Your task to perform on an android device: choose inbox layout in the gmail app Image 0: 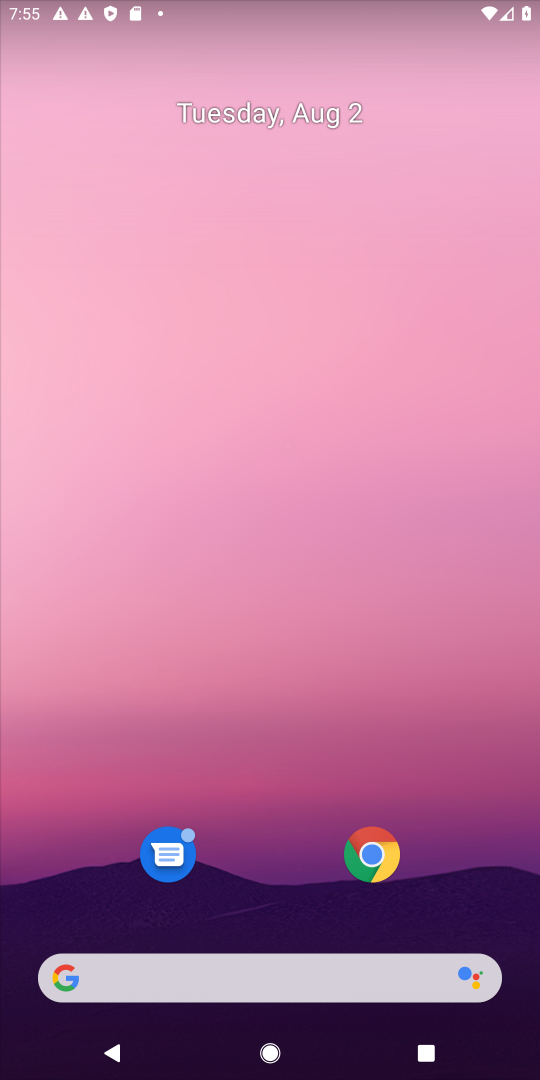
Step 0: press home button
Your task to perform on an android device: choose inbox layout in the gmail app Image 1: 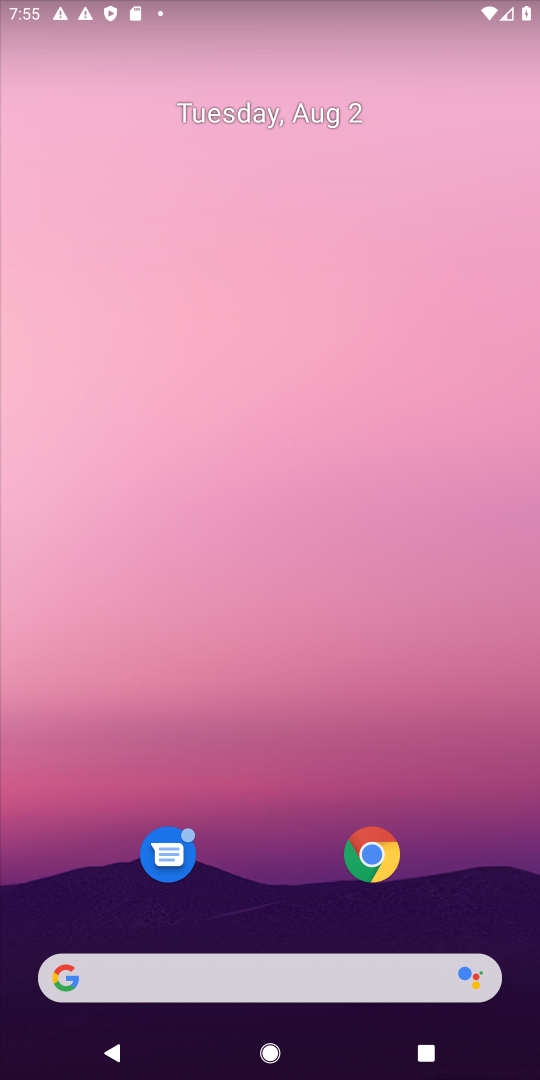
Step 1: drag from (277, 906) to (294, 145)
Your task to perform on an android device: choose inbox layout in the gmail app Image 2: 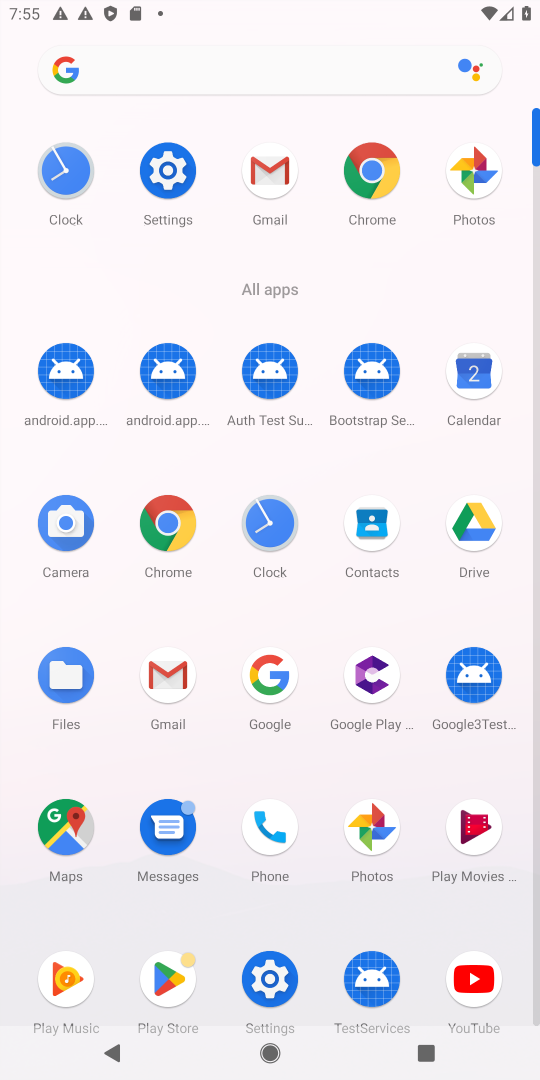
Step 2: click (266, 183)
Your task to perform on an android device: choose inbox layout in the gmail app Image 3: 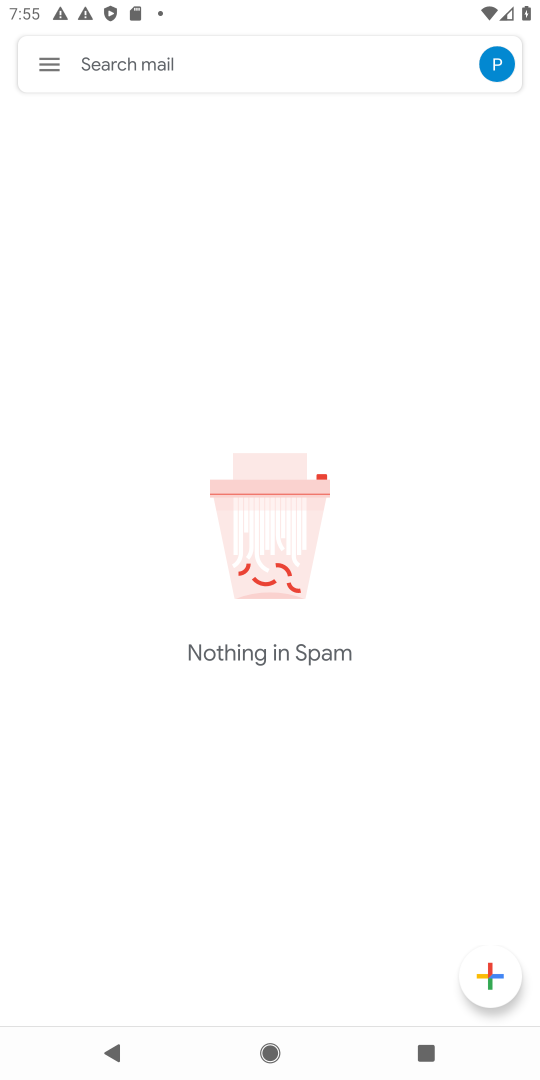
Step 3: click (54, 59)
Your task to perform on an android device: choose inbox layout in the gmail app Image 4: 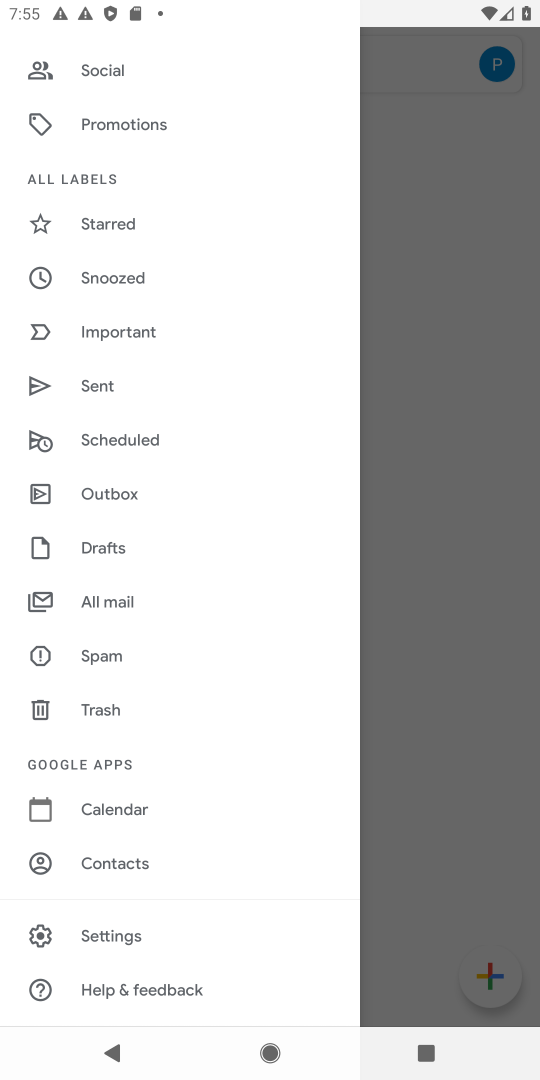
Step 4: click (189, 938)
Your task to perform on an android device: choose inbox layout in the gmail app Image 5: 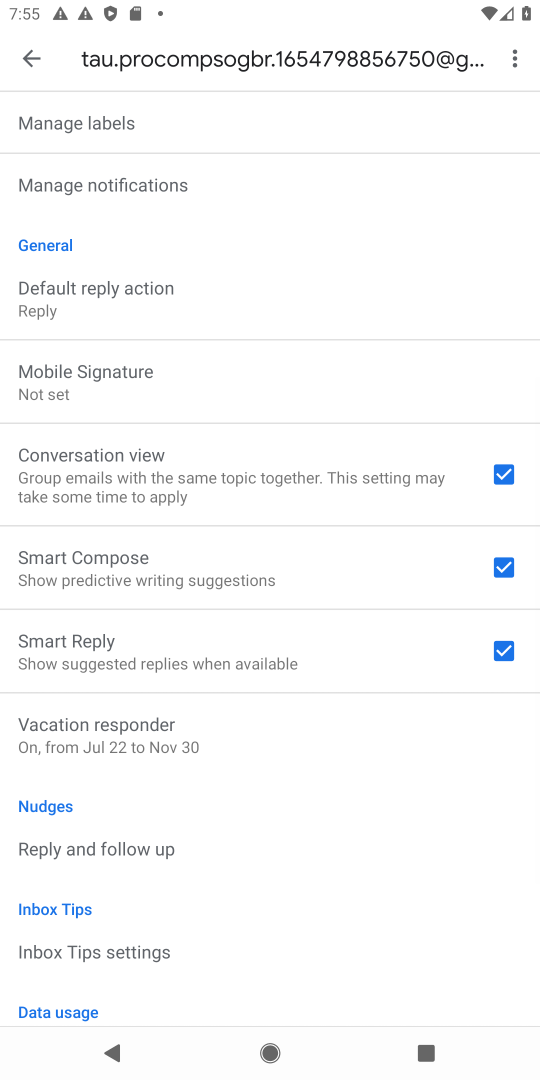
Step 5: drag from (324, 851) to (349, 615)
Your task to perform on an android device: choose inbox layout in the gmail app Image 6: 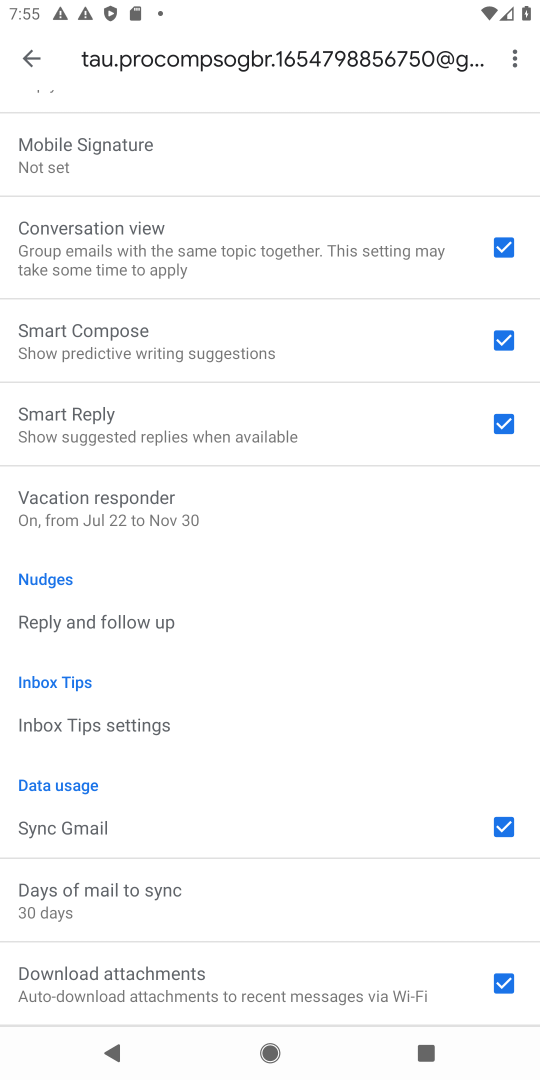
Step 6: drag from (313, 936) to (382, 391)
Your task to perform on an android device: choose inbox layout in the gmail app Image 7: 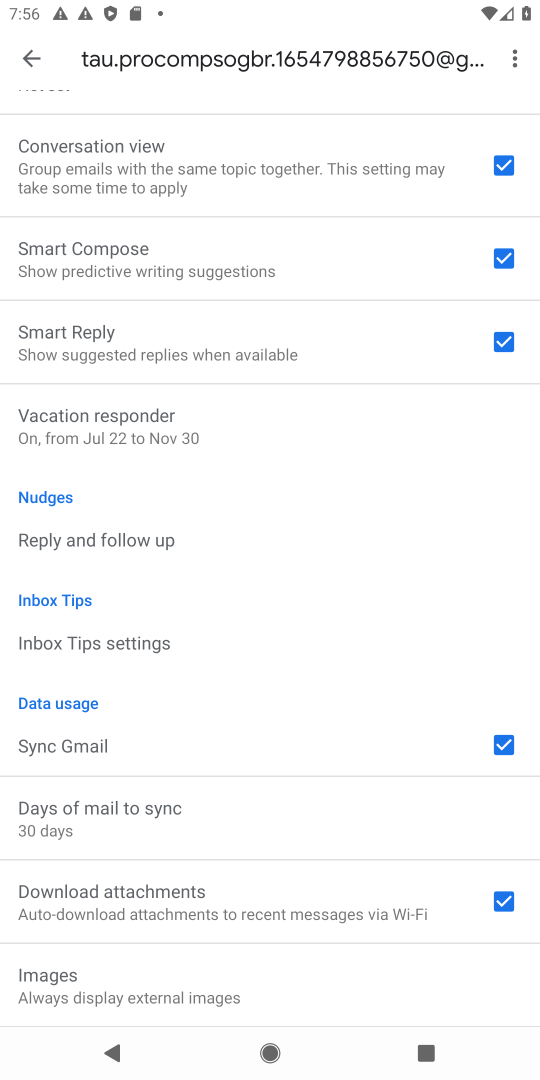
Step 7: drag from (390, 260) to (388, 683)
Your task to perform on an android device: choose inbox layout in the gmail app Image 8: 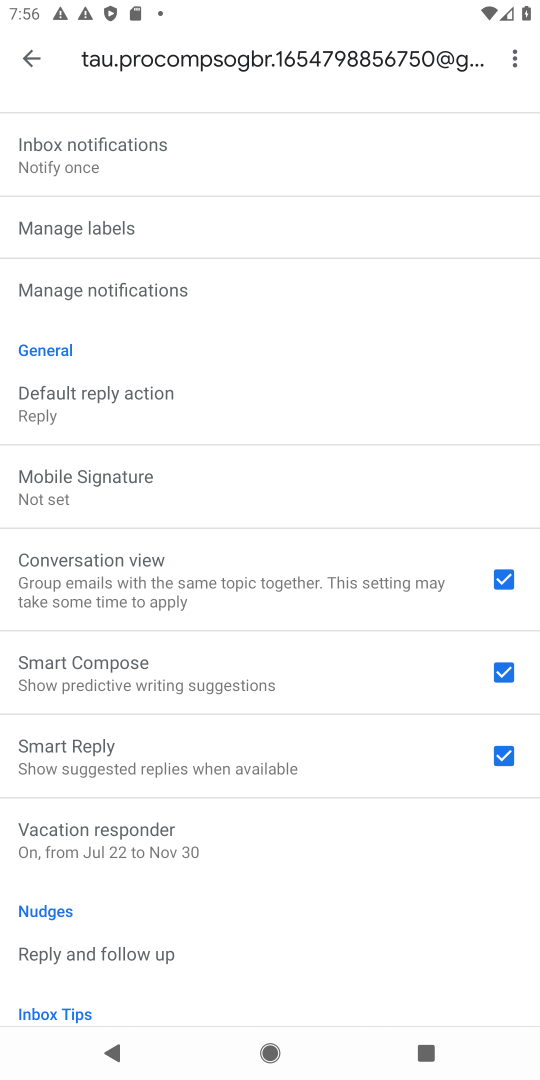
Step 8: drag from (301, 368) to (301, 671)
Your task to perform on an android device: choose inbox layout in the gmail app Image 9: 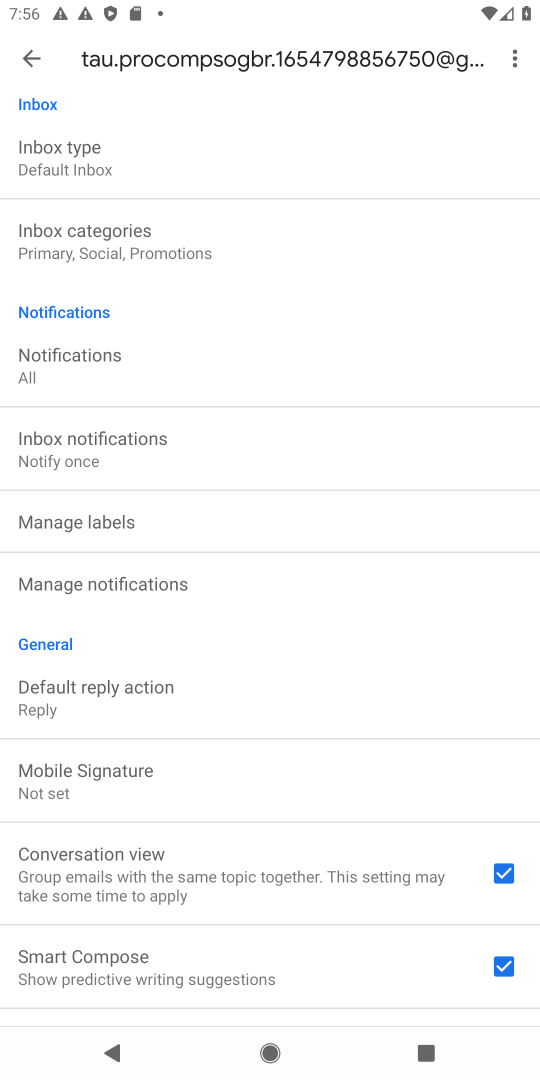
Step 9: drag from (294, 224) to (298, 603)
Your task to perform on an android device: choose inbox layout in the gmail app Image 10: 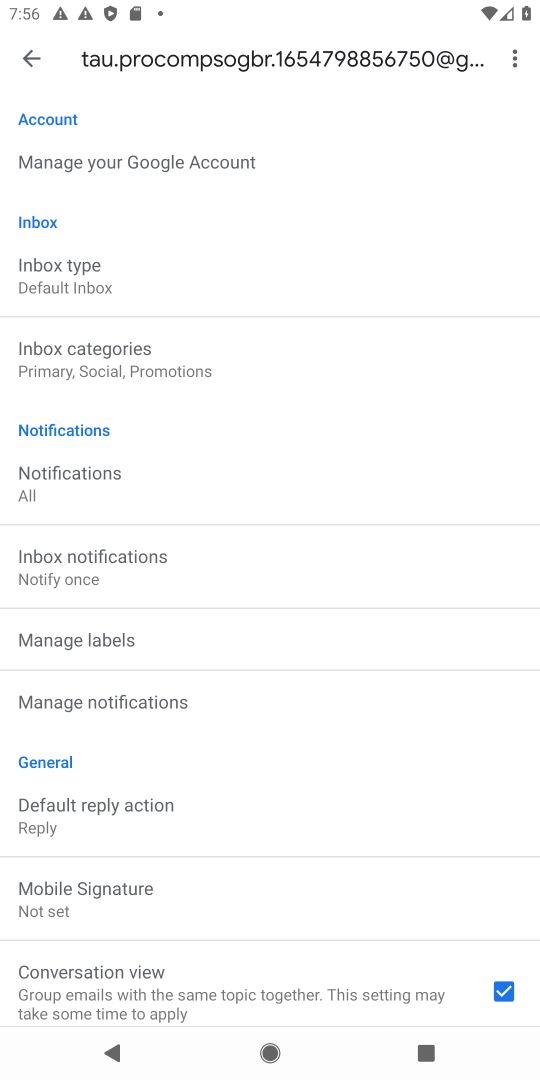
Step 10: click (134, 280)
Your task to perform on an android device: choose inbox layout in the gmail app Image 11: 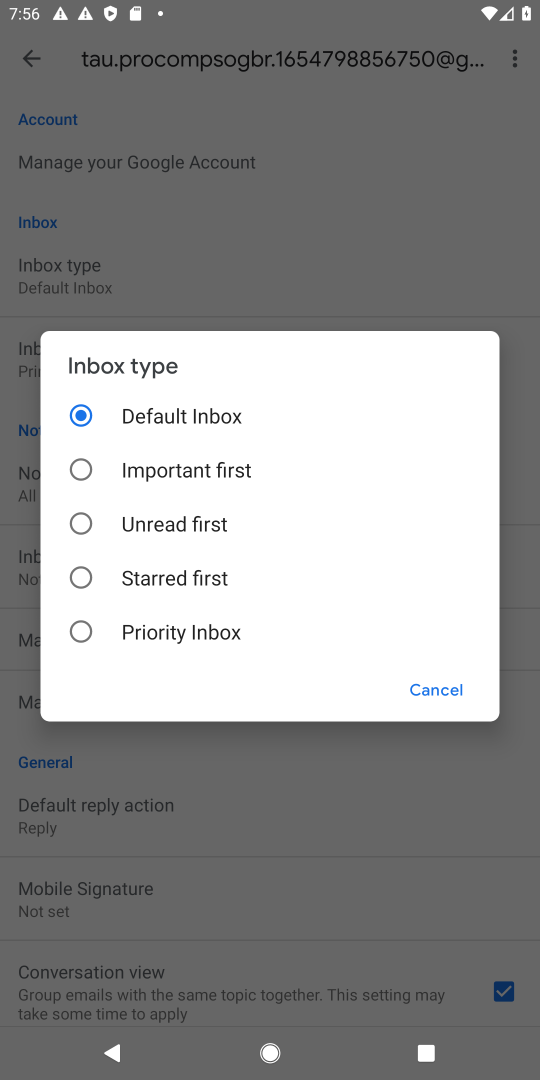
Step 11: click (155, 475)
Your task to perform on an android device: choose inbox layout in the gmail app Image 12: 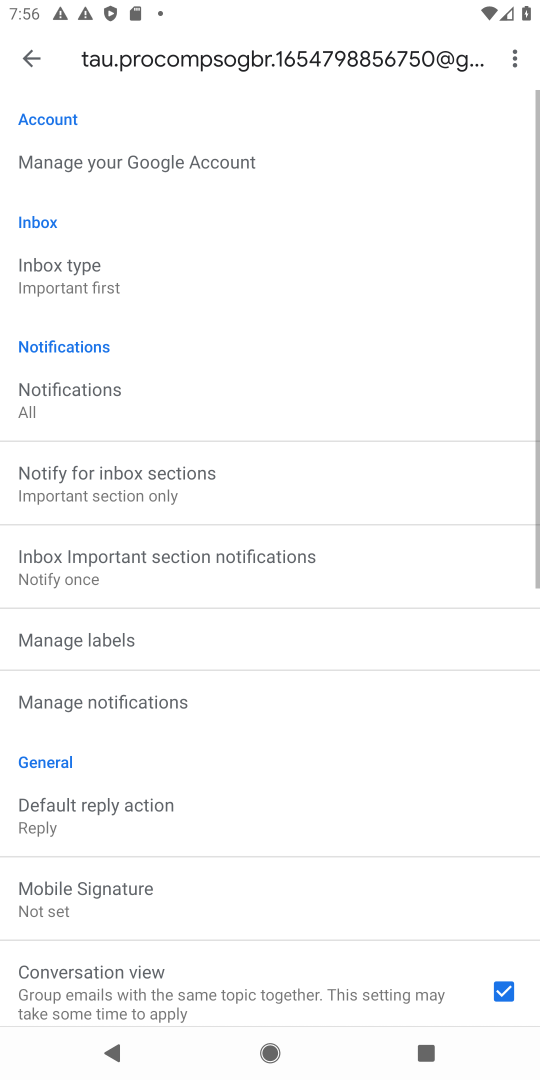
Step 12: task complete